Your task to perform on an android device: find snoozed emails in the gmail app Image 0: 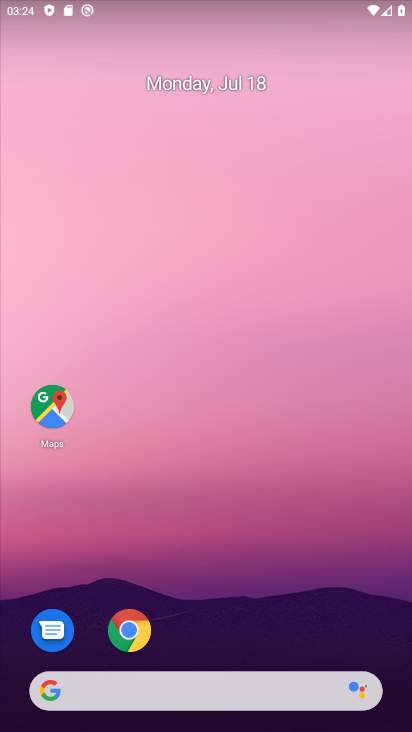
Step 0: drag from (216, 658) to (283, 123)
Your task to perform on an android device: find snoozed emails in the gmail app Image 1: 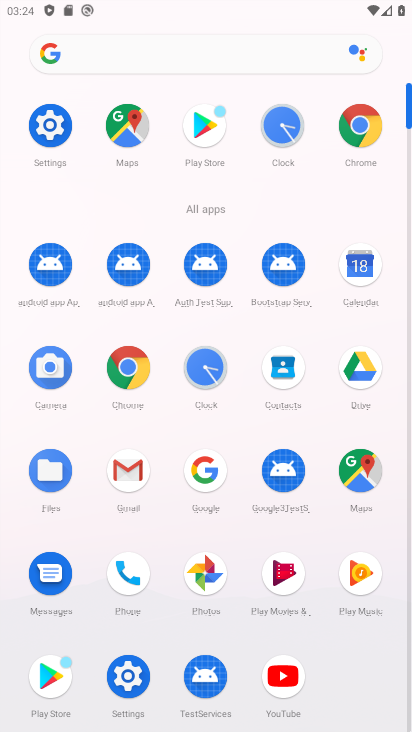
Step 1: click (131, 467)
Your task to perform on an android device: find snoozed emails in the gmail app Image 2: 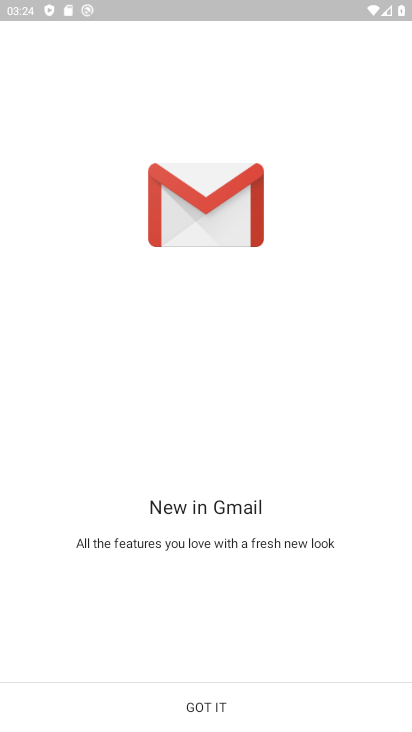
Step 2: click (203, 695)
Your task to perform on an android device: find snoozed emails in the gmail app Image 3: 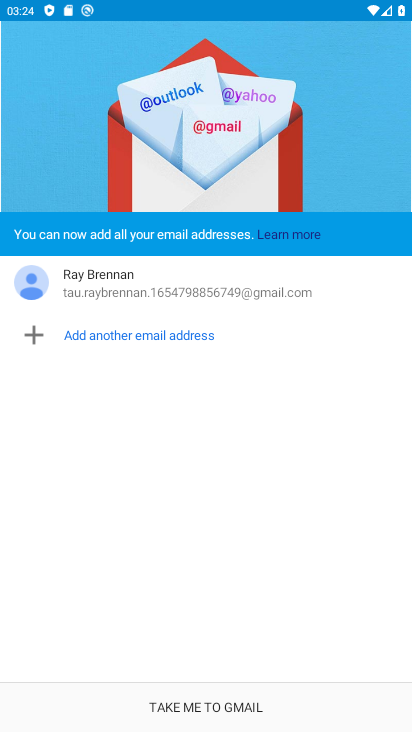
Step 3: click (206, 723)
Your task to perform on an android device: find snoozed emails in the gmail app Image 4: 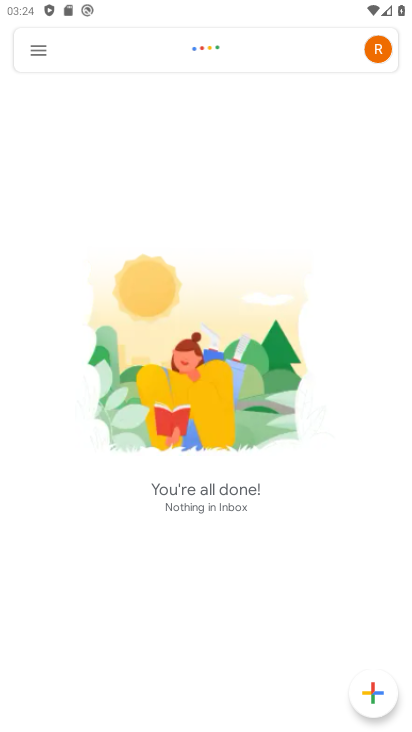
Step 4: click (46, 47)
Your task to perform on an android device: find snoozed emails in the gmail app Image 5: 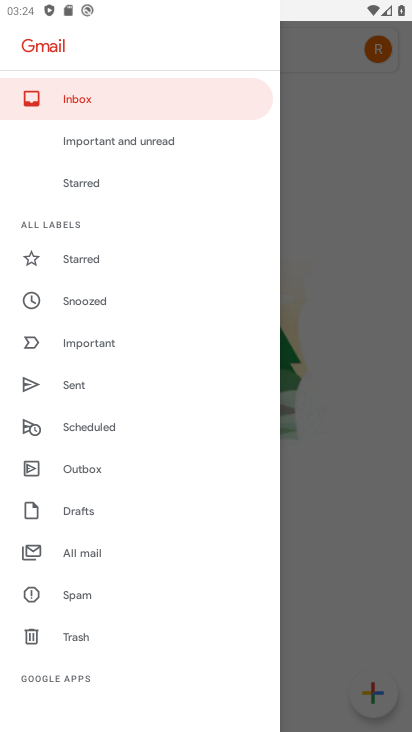
Step 5: click (132, 303)
Your task to perform on an android device: find snoozed emails in the gmail app Image 6: 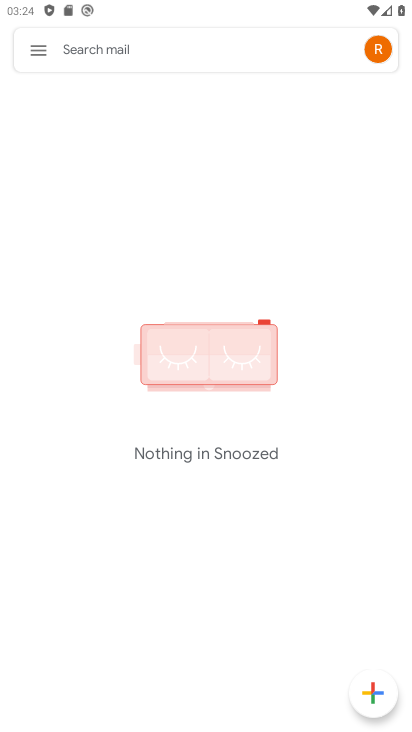
Step 6: task complete